Your task to perform on an android device: Open Google Chrome and open the bookmarks view Image 0: 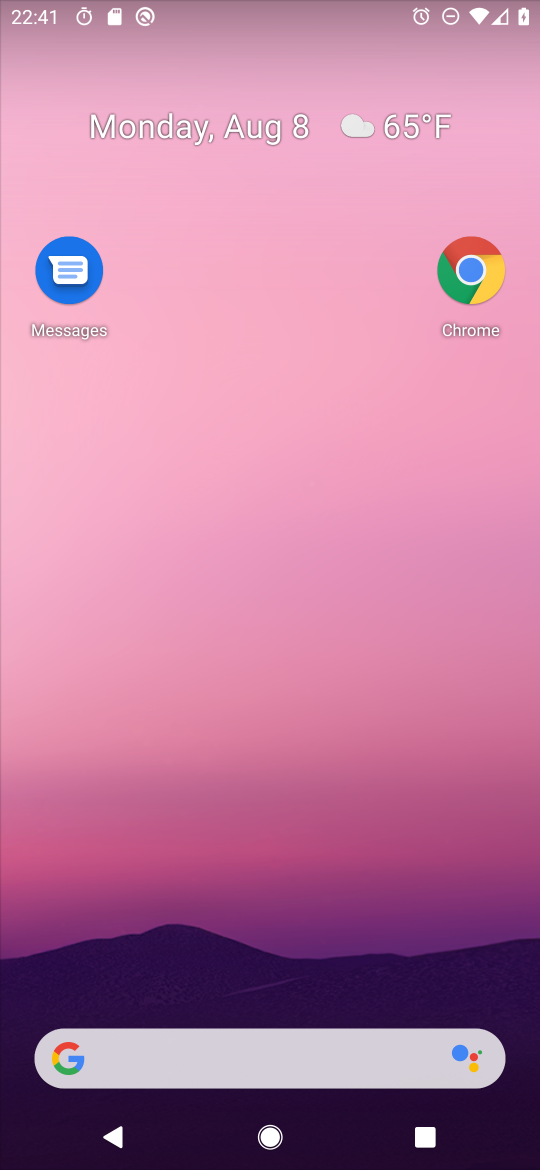
Step 0: drag from (285, 784) to (353, 344)
Your task to perform on an android device: Open Google Chrome and open the bookmarks view Image 1: 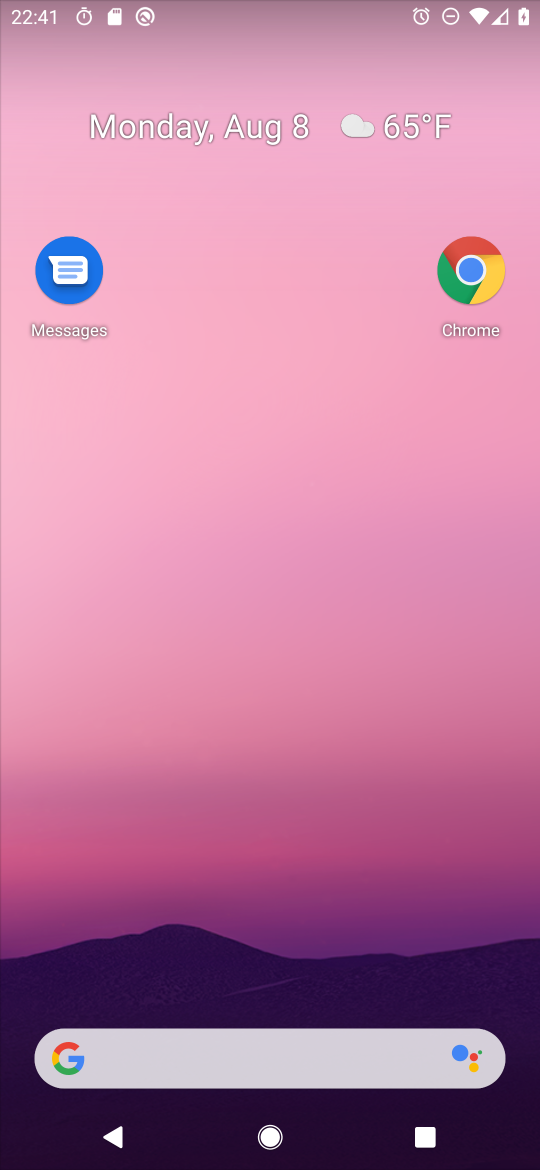
Step 1: drag from (284, 986) to (217, 91)
Your task to perform on an android device: Open Google Chrome and open the bookmarks view Image 2: 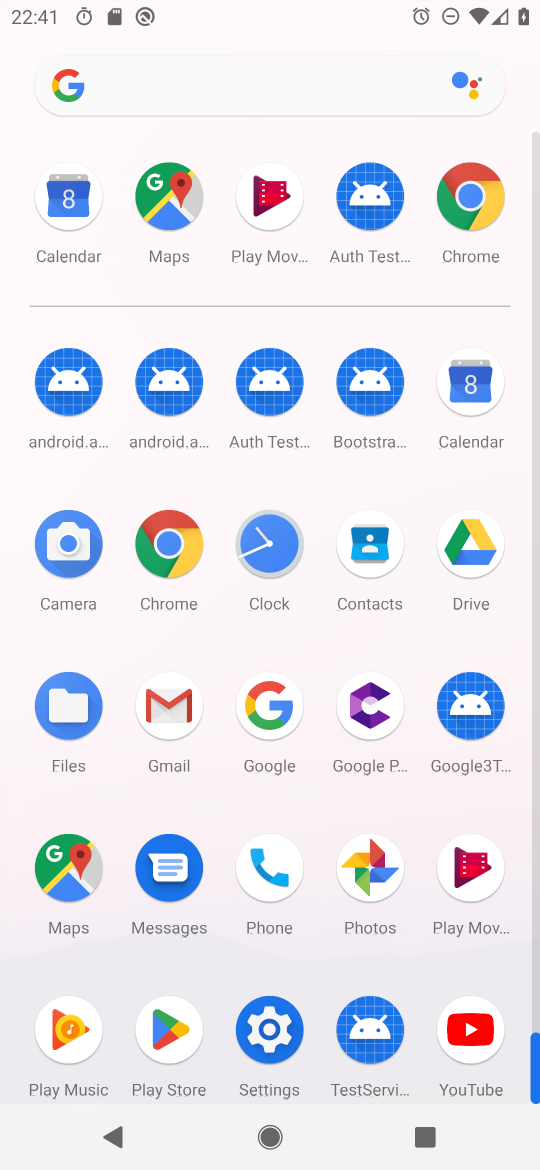
Step 2: click (158, 532)
Your task to perform on an android device: Open Google Chrome and open the bookmarks view Image 3: 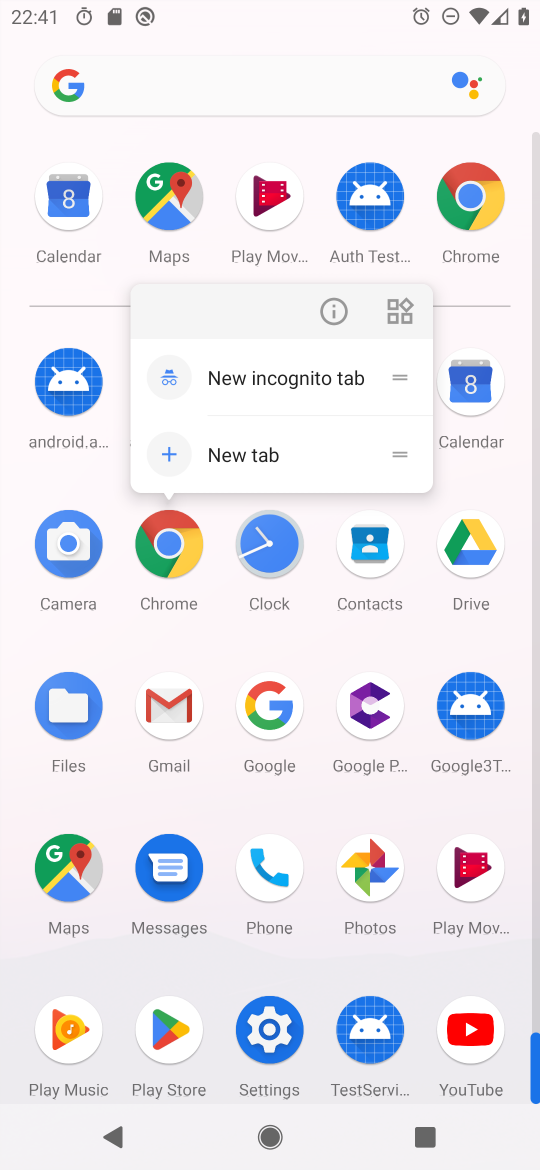
Step 3: click (330, 310)
Your task to perform on an android device: Open Google Chrome and open the bookmarks view Image 4: 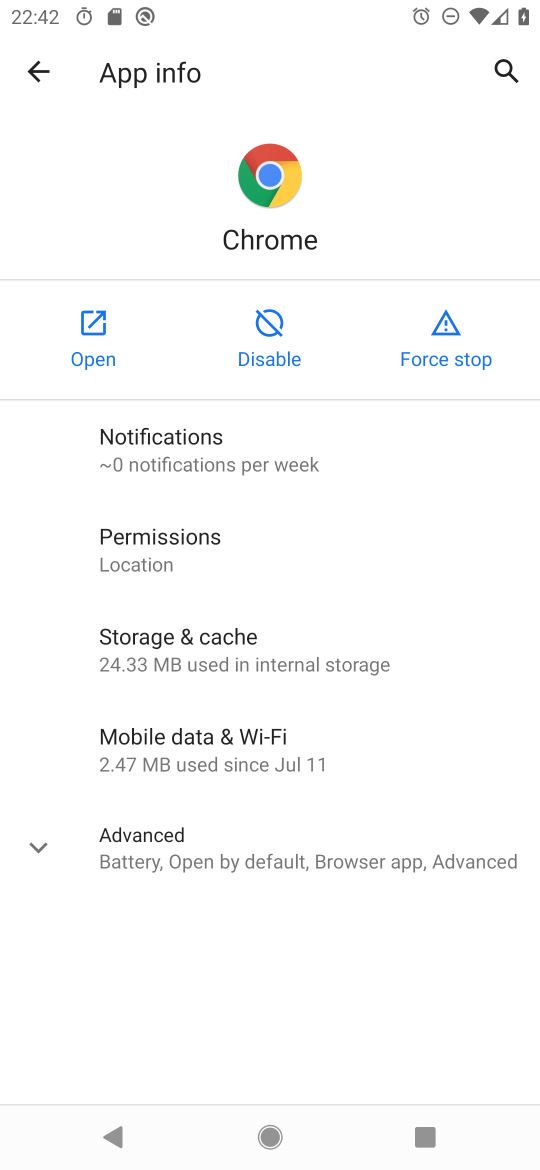
Step 4: click (98, 349)
Your task to perform on an android device: Open Google Chrome and open the bookmarks view Image 5: 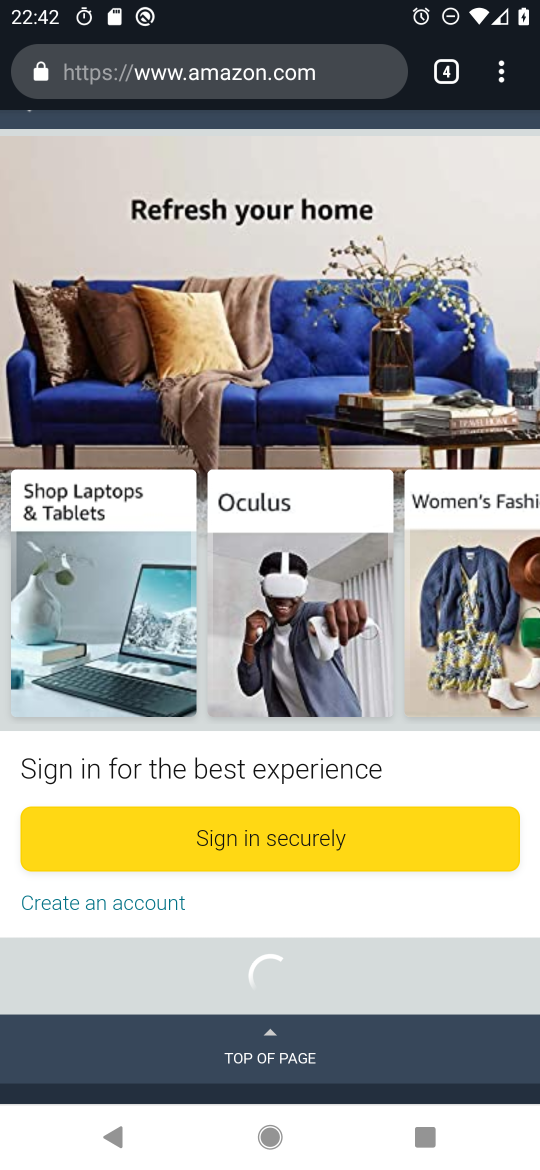
Step 5: drag from (499, 77) to (303, 274)
Your task to perform on an android device: Open Google Chrome and open the bookmarks view Image 6: 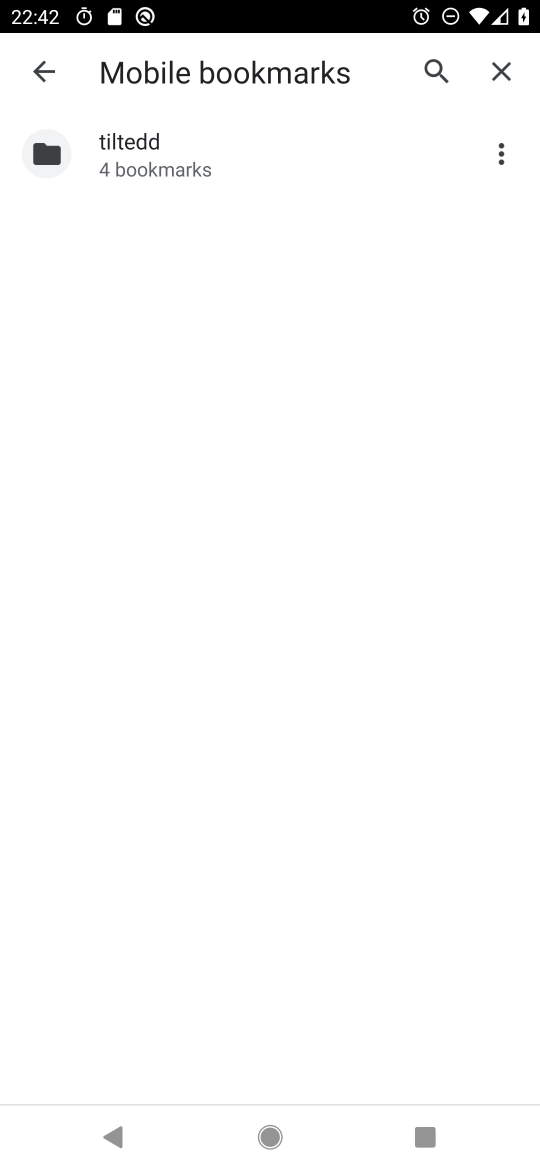
Step 6: click (250, 145)
Your task to perform on an android device: Open Google Chrome and open the bookmarks view Image 7: 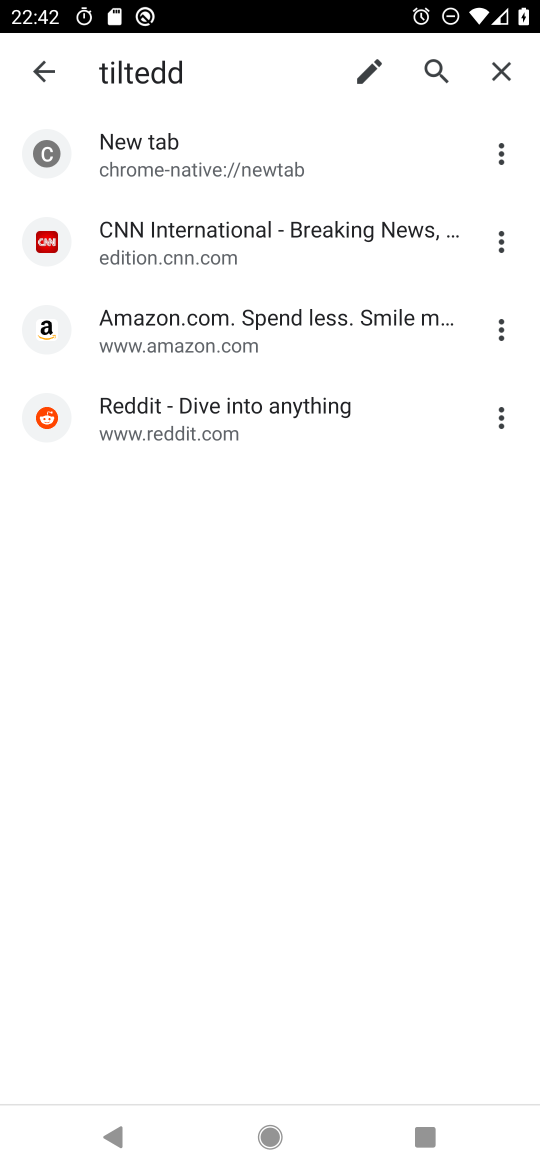
Step 7: task complete